Your task to perform on an android device: turn on the 12-hour format for clock Image 0: 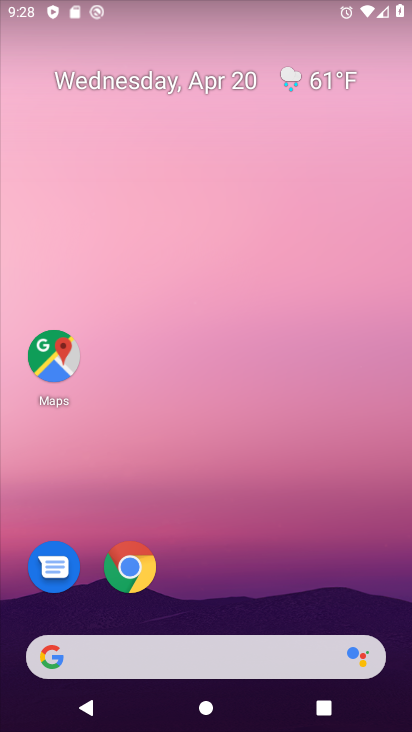
Step 0: drag from (210, 593) to (213, 184)
Your task to perform on an android device: turn on the 12-hour format for clock Image 1: 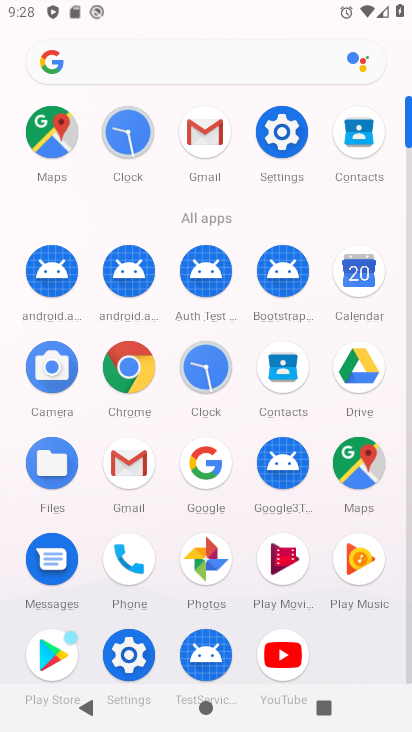
Step 1: click (129, 131)
Your task to perform on an android device: turn on the 12-hour format for clock Image 2: 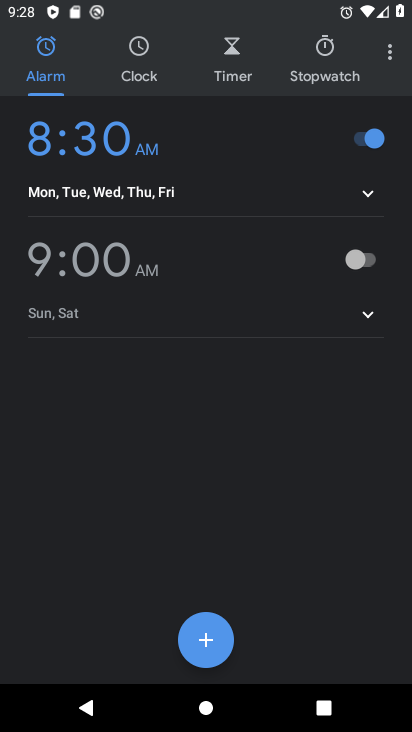
Step 2: click (384, 47)
Your task to perform on an android device: turn on the 12-hour format for clock Image 3: 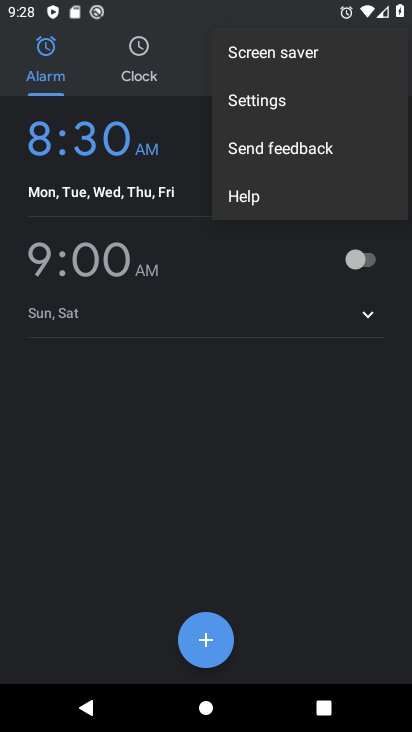
Step 3: click (258, 109)
Your task to perform on an android device: turn on the 12-hour format for clock Image 4: 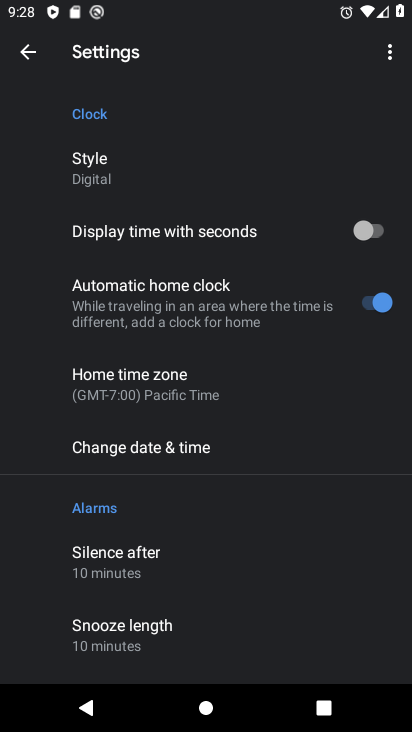
Step 4: click (193, 440)
Your task to perform on an android device: turn on the 12-hour format for clock Image 5: 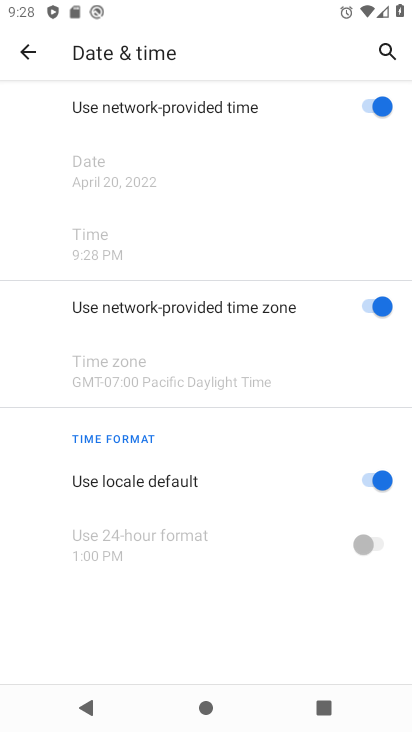
Step 5: task complete